Your task to perform on an android device: Check the weather Image 0: 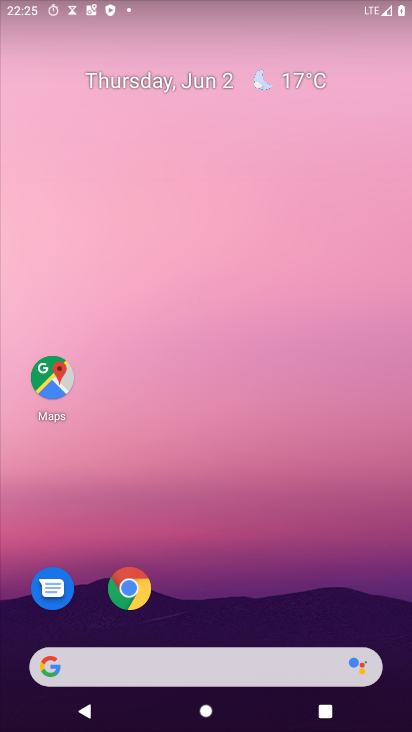
Step 0: click (265, 82)
Your task to perform on an android device: Check the weather Image 1: 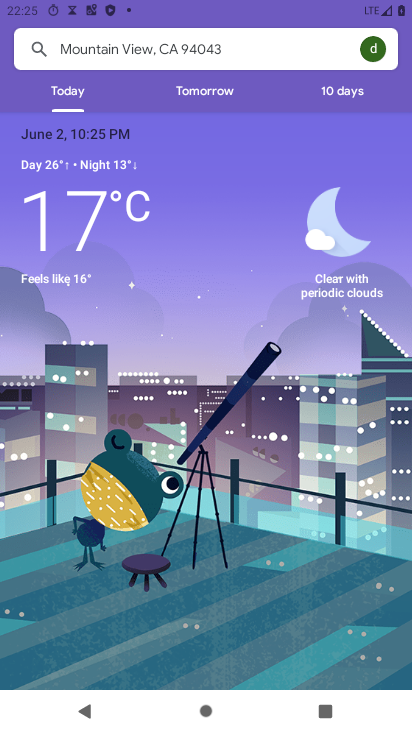
Step 1: task complete